Your task to perform on an android device: Open the calendar and show me this week's events? Image 0: 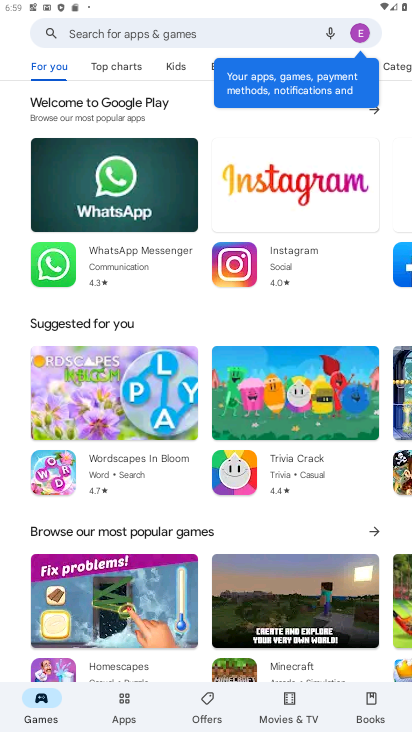
Step 0: press home button
Your task to perform on an android device: Open the calendar and show me this week's events? Image 1: 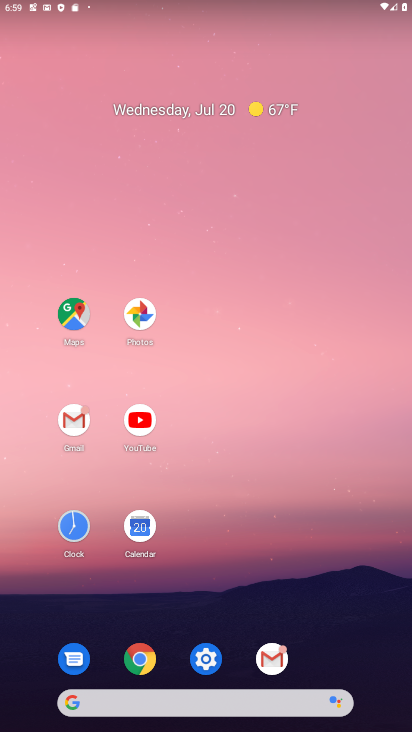
Step 1: click (141, 529)
Your task to perform on an android device: Open the calendar and show me this week's events? Image 2: 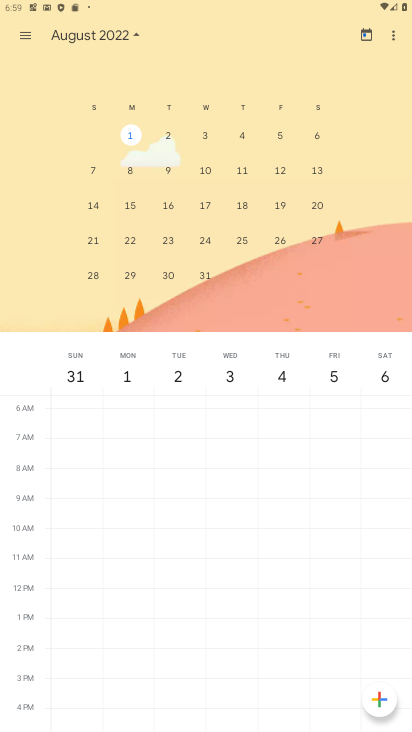
Step 2: drag from (82, 182) to (303, 147)
Your task to perform on an android device: Open the calendar and show me this week's events? Image 3: 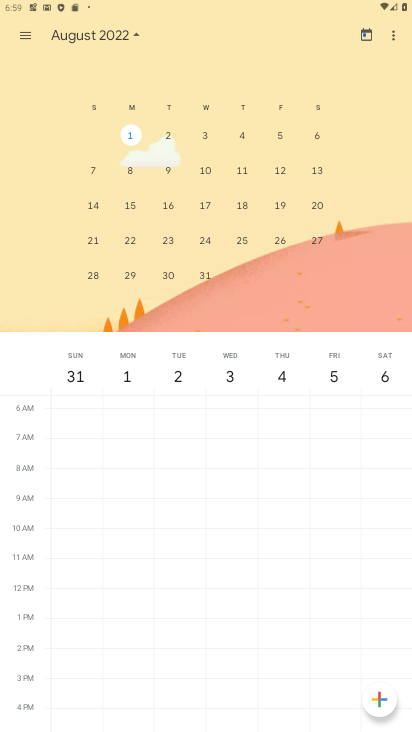
Step 3: drag from (86, 212) to (400, 226)
Your task to perform on an android device: Open the calendar and show me this week's events? Image 4: 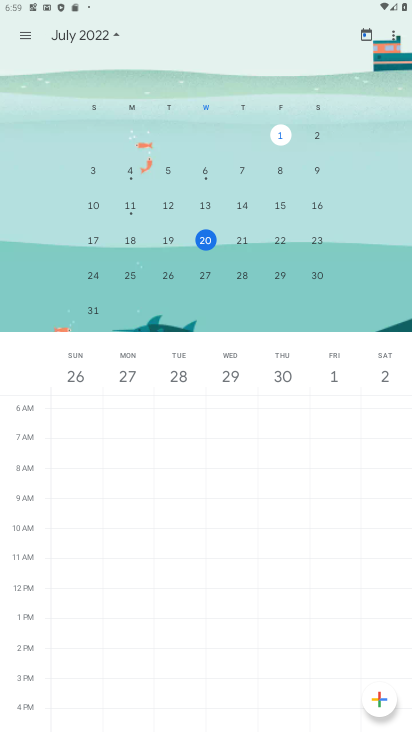
Step 4: click (208, 246)
Your task to perform on an android device: Open the calendar and show me this week's events? Image 5: 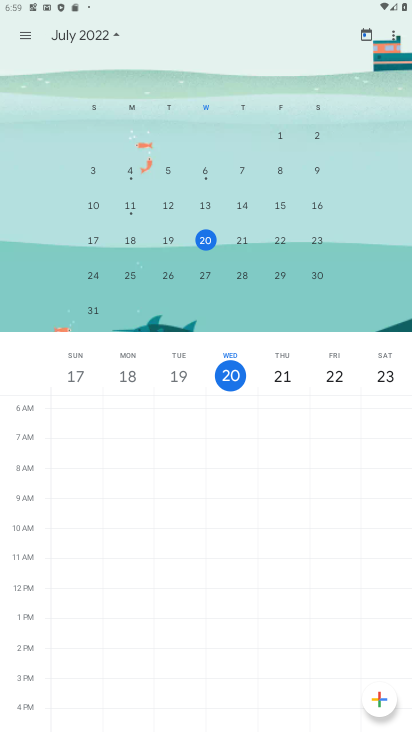
Step 5: task complete